Your task to perform on an android device: Open the stopwatch Image 0: 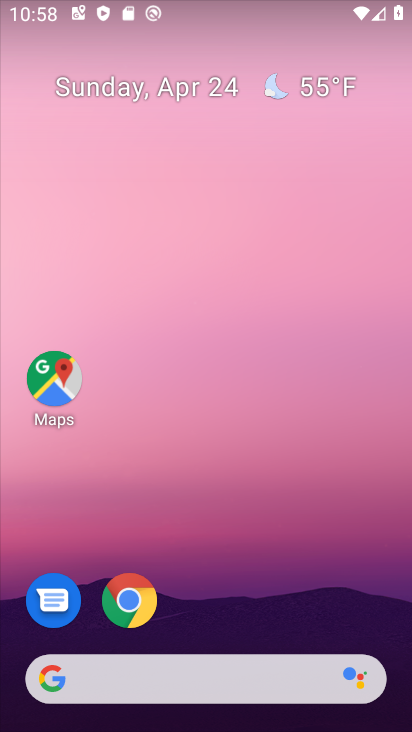
Step 0: drag from (217, 626) to (249, 199)
Your task to perform on an android device: Open the stopwatch Image 1: 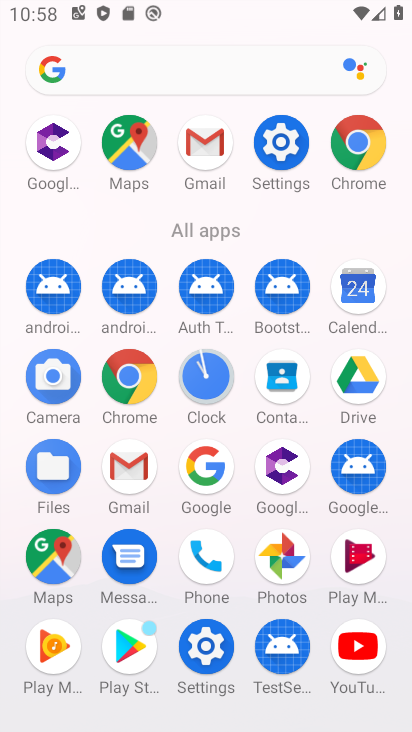
Step 1: click (195, 372)
Your task to perform on an android device: Open the stopwatch Image 2: 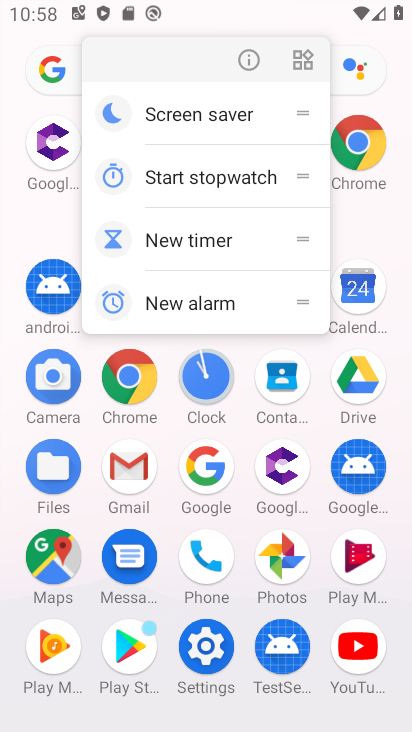
Step 2: click (195, 372)
Your task to perform on an android device: Open the stopwatch Image 3: 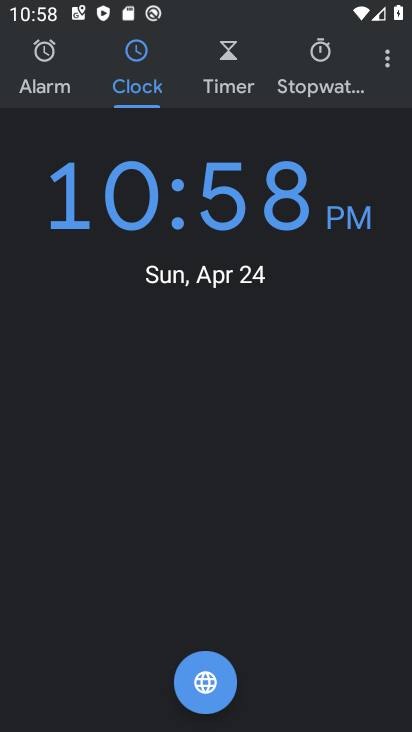
Step 3: click (321, 53)
Your task to perform on an android device: Open the stopwatch Image 4: 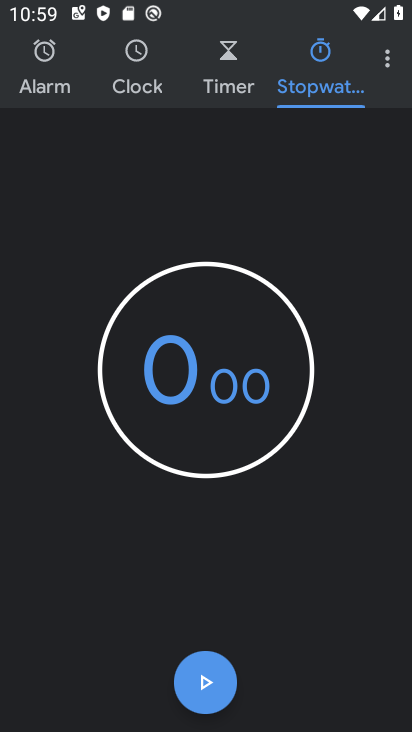
Step 4: task complete